Your task to perform on an android device: Open my contact list Image 0: 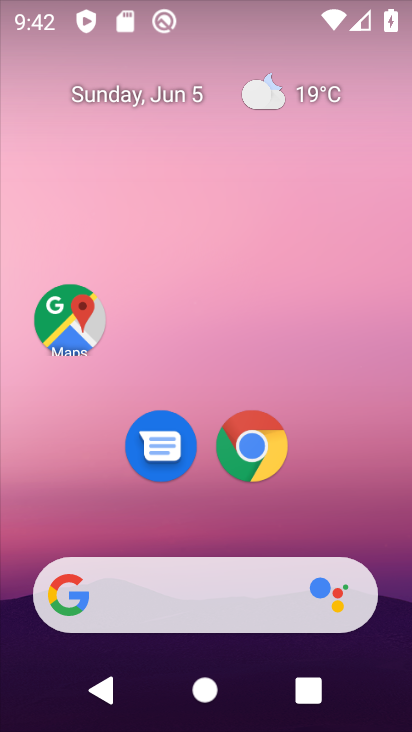
Step 0: drag from (210, 529) to (224, 13)
Your task to perform on an android device: Open my contact list Image 1: 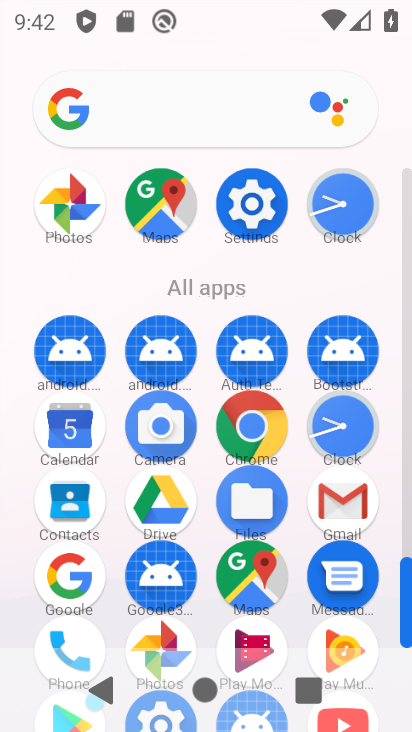
Step 1: click (70, 493)
Your task to perform on an android device: Open my contact list Image 2: 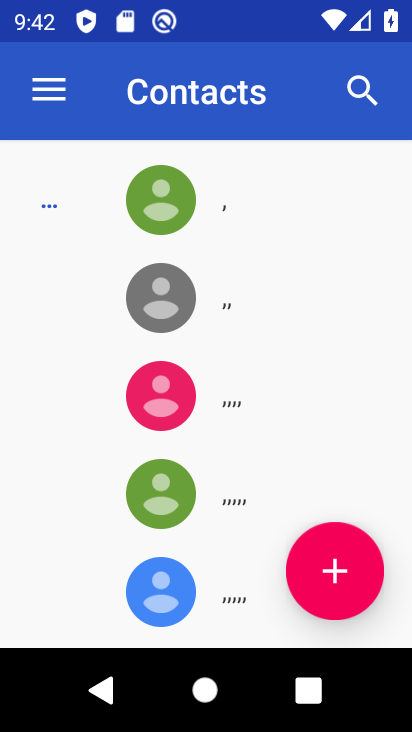
Step 2: task complete